Your task to perform on an android device: refresh tabs in the chrome app Image 0: 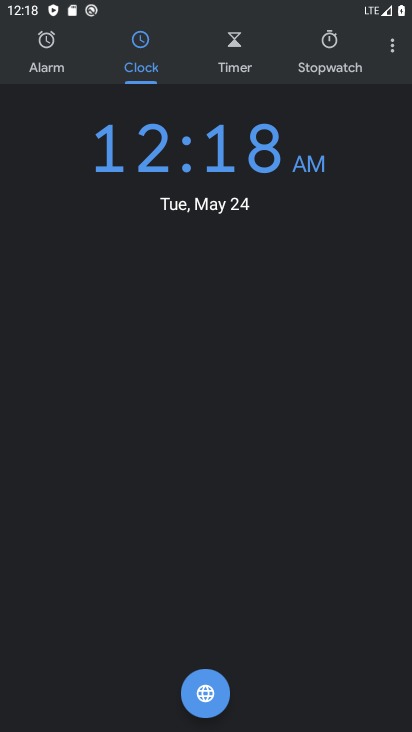
Step 0: press home button
Your task to perform on an android device: refresh tabs in the chrome app Image 1: 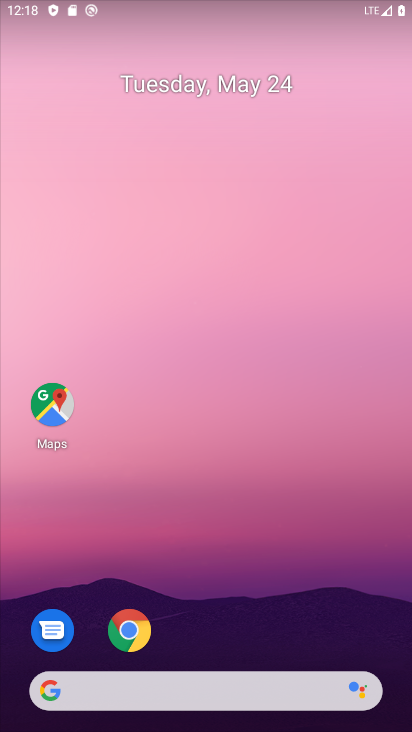
Step 1: click (117, 639)
Your task to perform on an android device: refresh tabs in the chrome app Image 2: 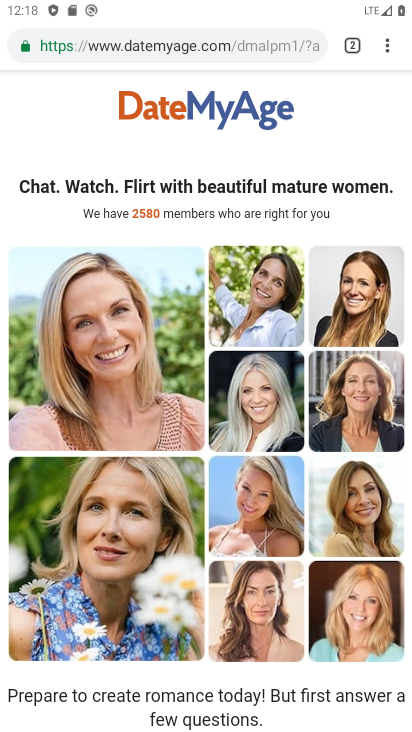
Step 2: click (391, 42)
Your task to perform on an android device: refresh tabs in the chrome app Image 3: 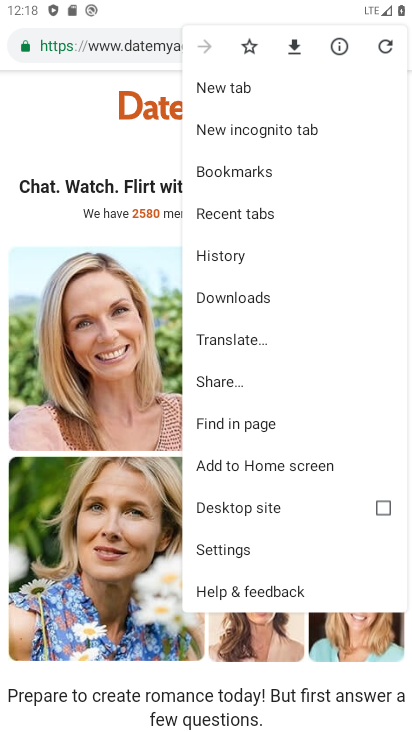
Step 3: click (386, 41)
Your task to perform on an android device: refresh tabs in the chrome app Image 4: 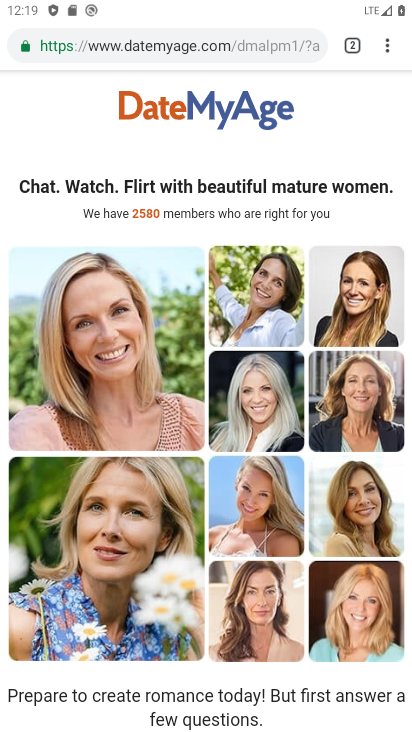
Step 4: task complete